Your task to perform on an android device: uninstall "Google Play Music" Image 0: 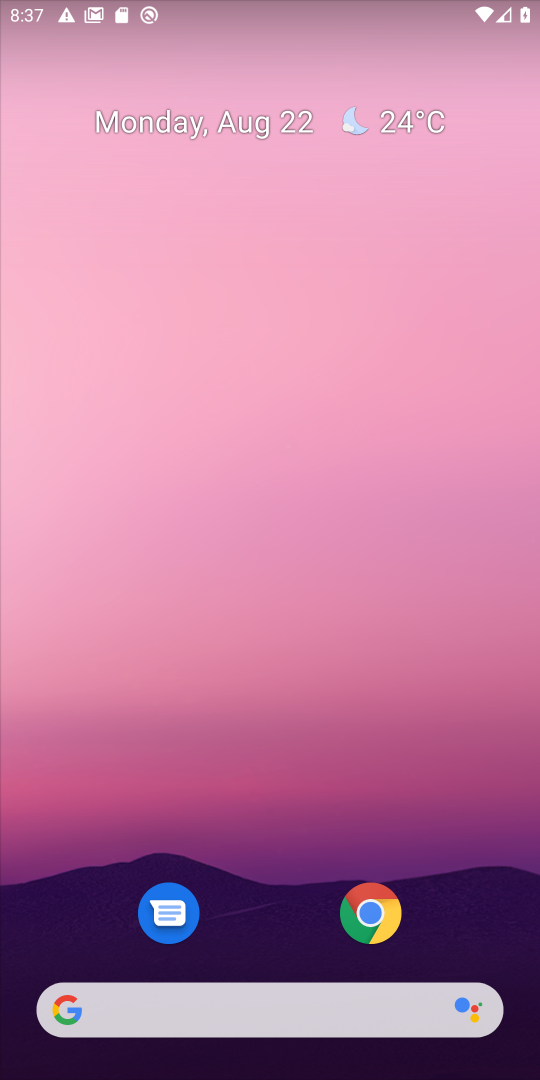
Step 0: drag from (306, 984) to (394, 33)
Your task to perform on an android device: uninstall "Google Play Music" Image 1: 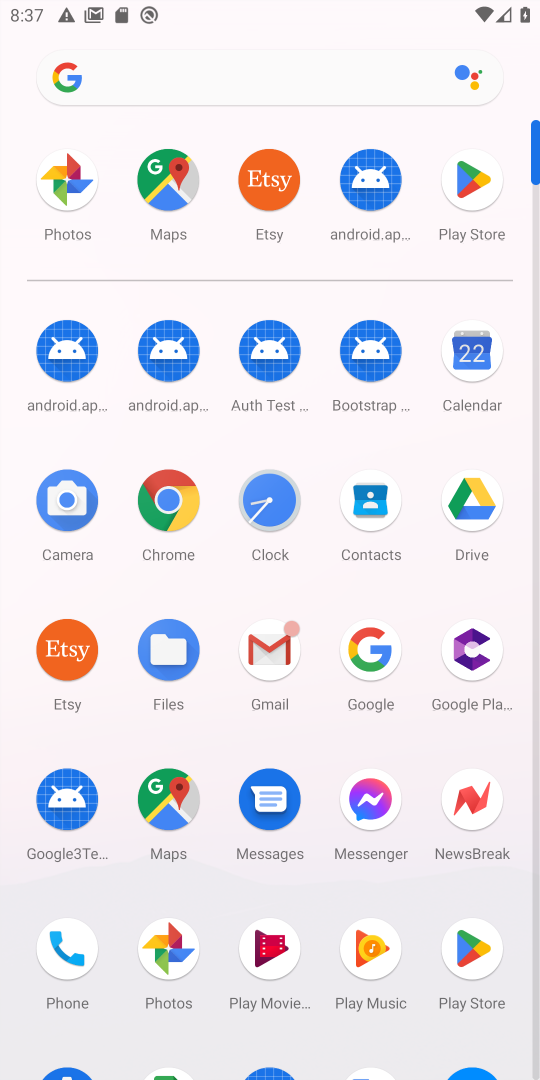
Step 1: click (449, 199)
Your task to perform on an android device: uninstall "Google Play Music" Image 2: 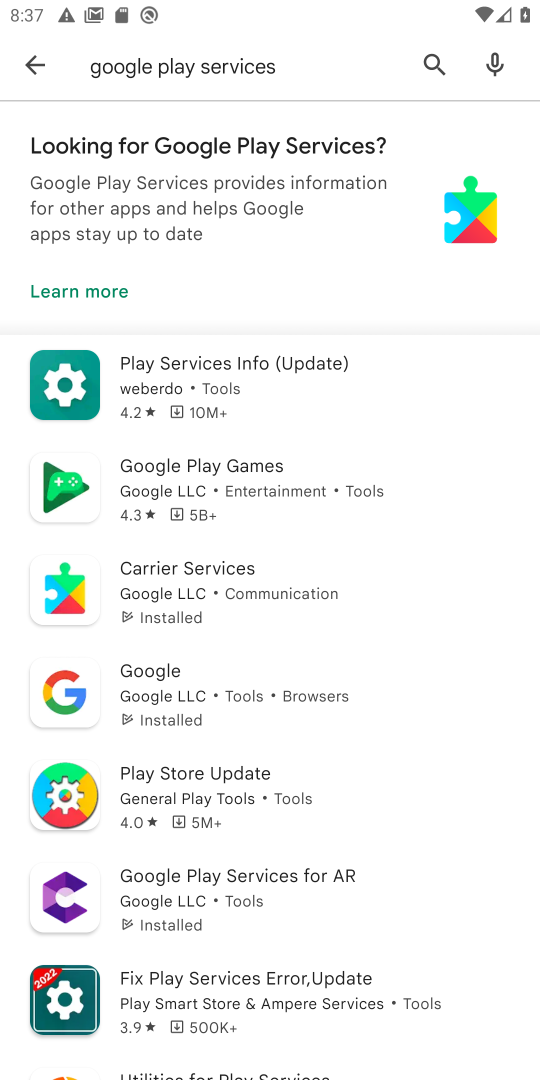
Step 2: click (430, 56)
Your task to perform on an android device: uninstall "Google Play Music" Image 3: 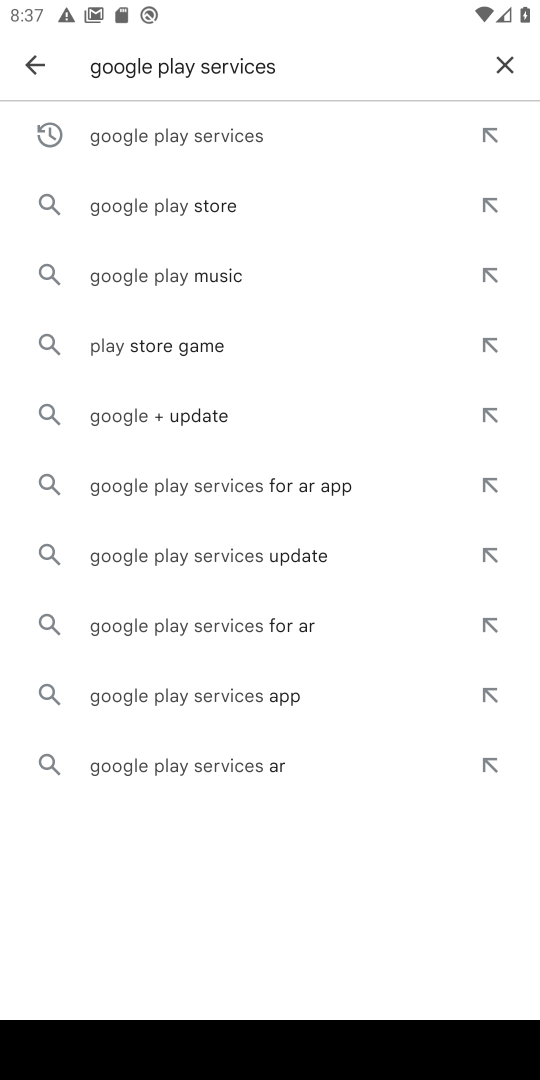
Step 3: click (503, 67)
Your task to perform on an android device: uninstall "Google Play Music" Image 4: 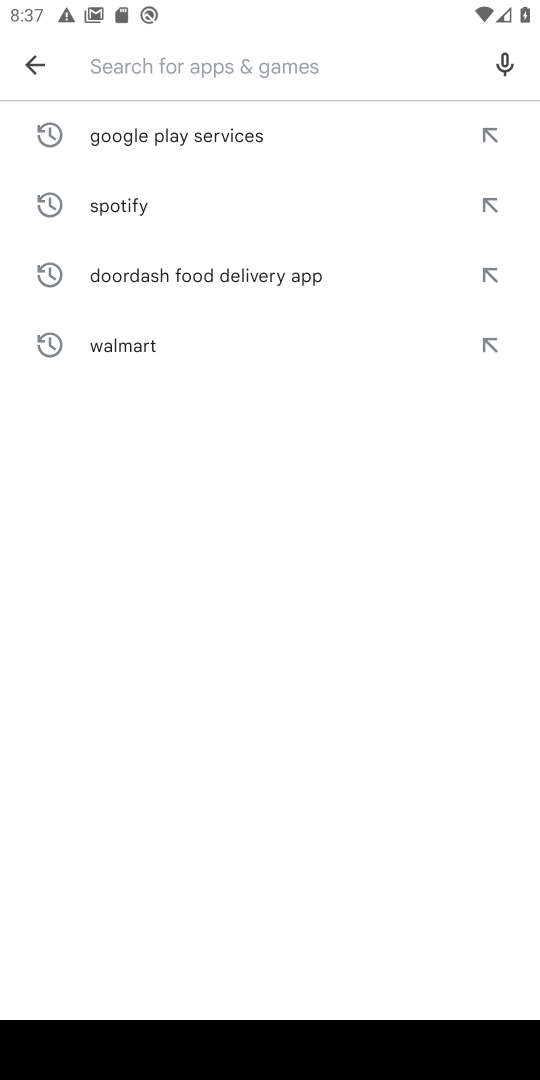
Step 4: type "google play music"
Your task to perform on an android device: uninstall "Google Play Music" Image 5: 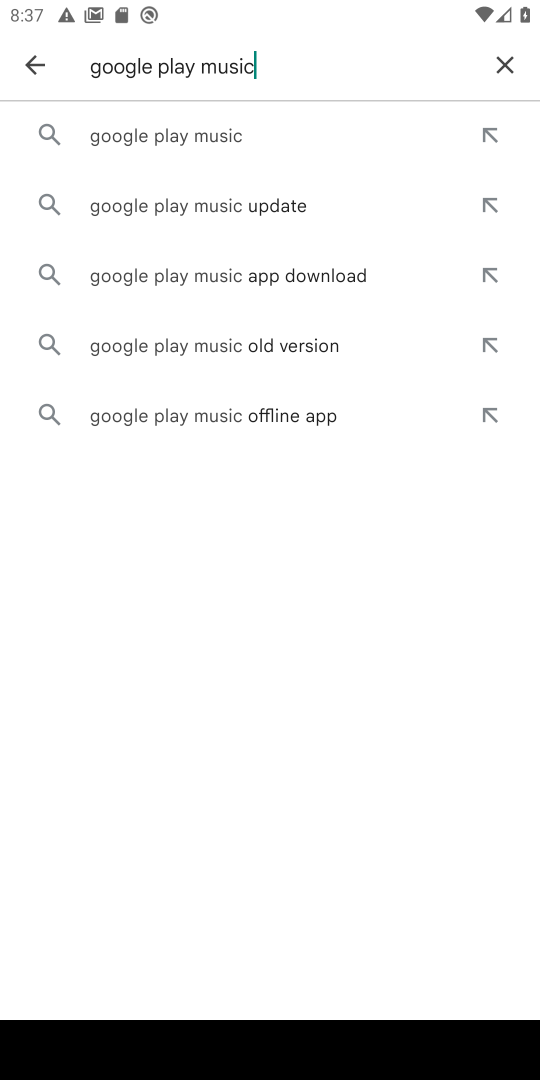
Step 5: click (99, 150)
Your task to perform on an android device: uninstall "Google Play Music" Image 6: 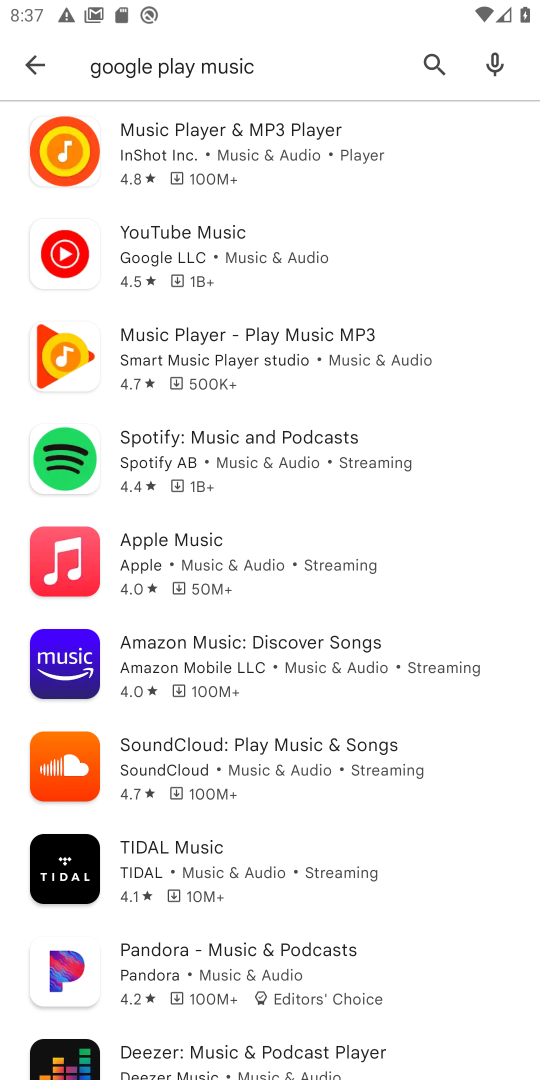
Step 6: click (203, 273)
Your task to perform on an android device: uninstall "Google Play Music" Image 7: 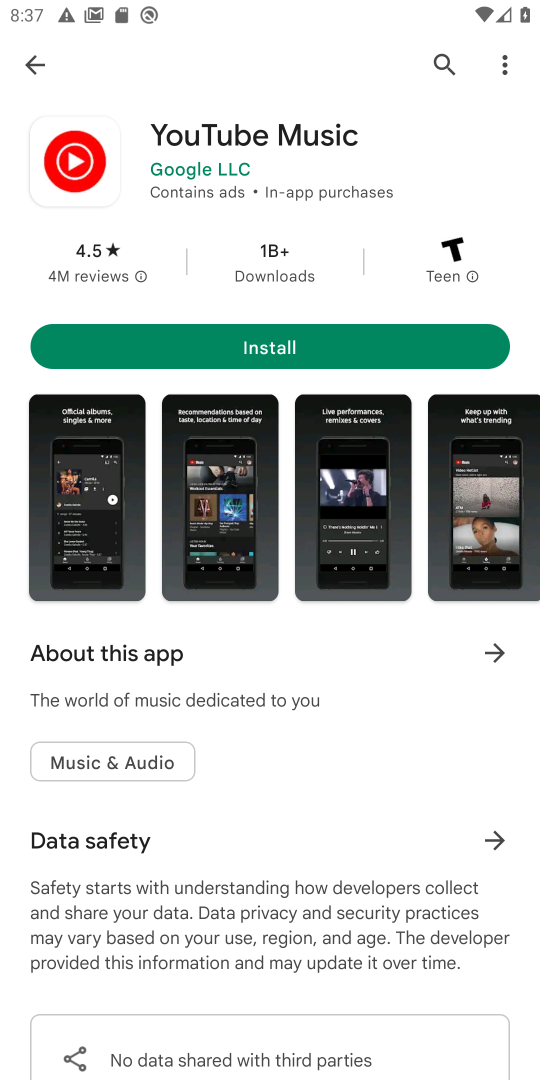
Step 7: task complete